Your task to perform on an android device: Show me the alarms in the clock app Image 0: 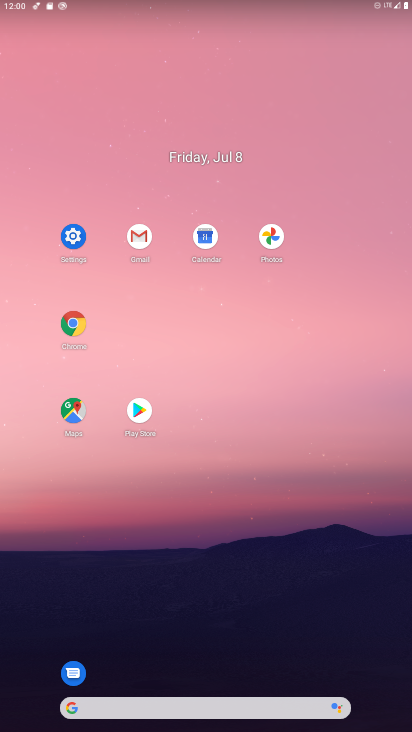
Step 0: drag from (239, 620) to (261, 186)
Your task to perform on an android device: Show me the alarms in the clock app Image 1: 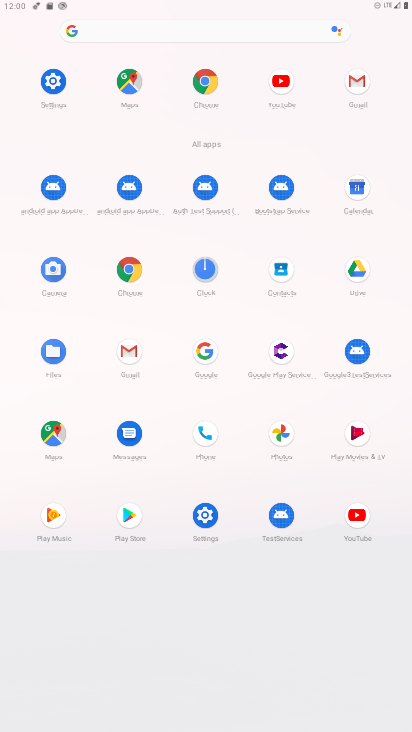
Step 1: drag from (203, 277) to (128, 282)
Your task to perform on an android device: Show me the alarms in the clock app Image 2: 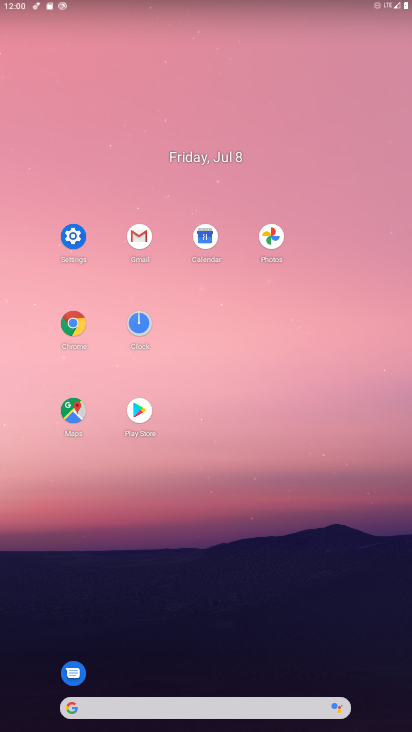
Step 2: click (142, 325)
Your task to perform on an android device: Show me the alarms in the clock app Image 3: 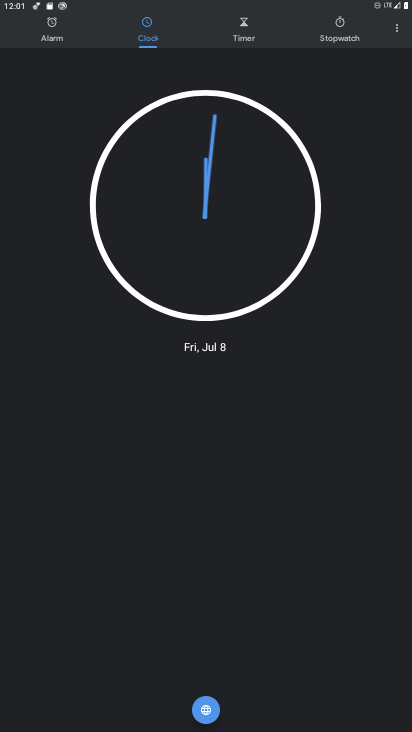
Step 3: click (57, 36)
Your task to perform on an android device: Show me the alarms in the clock app Image 4: 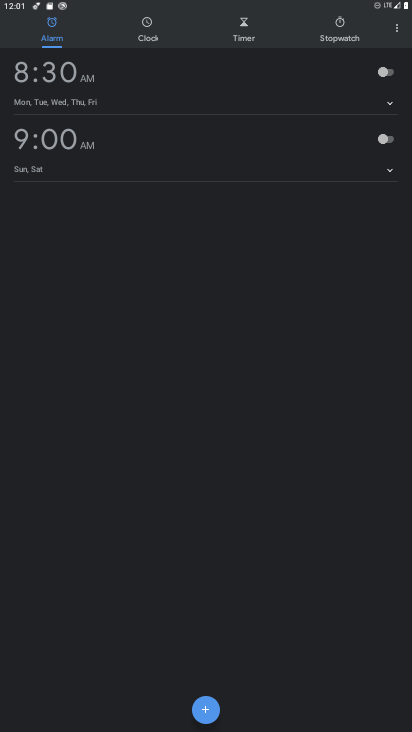
Step 4: click (382, 69)
Your task to perform on an android device: Show me the alarms in the clock app Image 5: 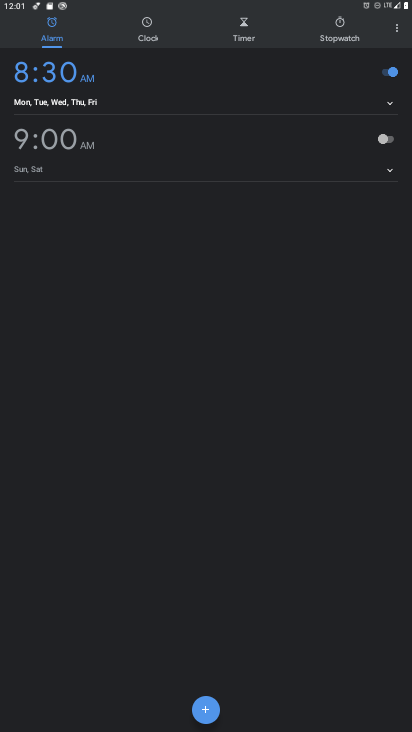
Step 5: task complete